Your task to perform on an android device: turn on bluetooth scan Image 0: 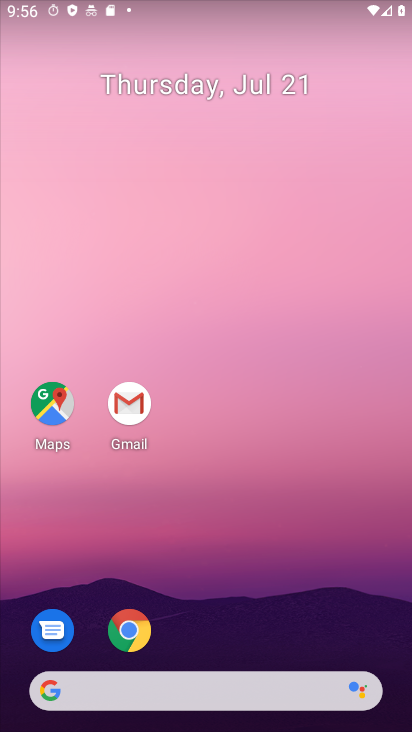
Step 0: drag from (241, 717) to (199, 375)
Your task to perform on an android device: turn on bluetooth scan Image 1: 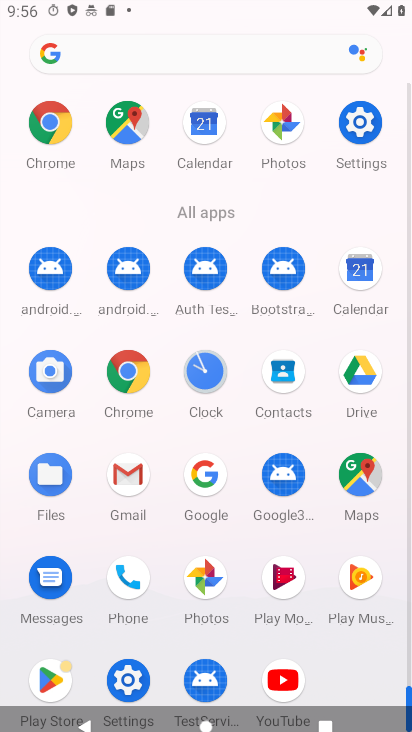
Step 1: click (347, 131)
Your task to perform on an android device: turn on bluetooth scan Image 2: 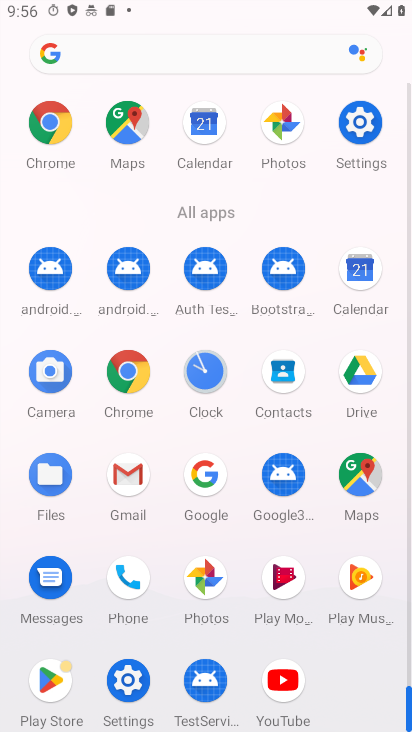
Step 2: click (350, 129)
Your task to perform on an android device: turn on bluetooth scan Image 3: 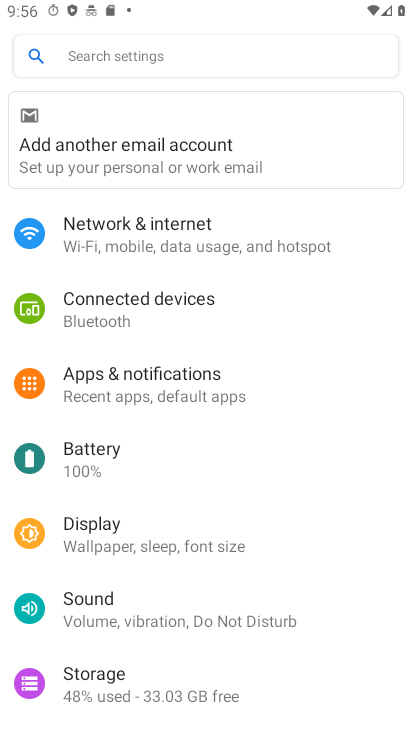
Step 3: drag from (207, 568) to (187, 361)
Your task to perform on an android device: turn on bluetooth scan Image 4: 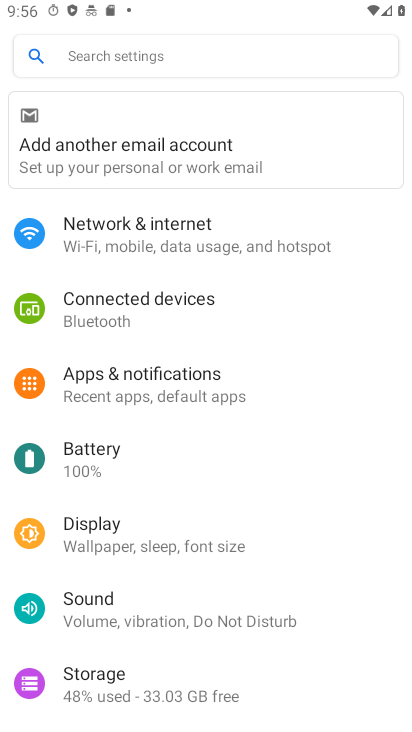
Step 4: drag from (218, 574) to (223, 319)
Your task to perform on an android device: turn on bluetooth scan Image 5: 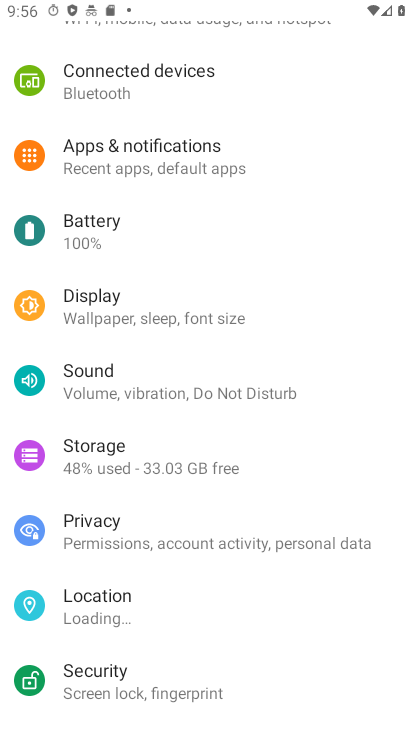
Step 5: drag from (179, 586) to (187, 364)
Your task to perform on an android device: turn on bluetooth scan Image 6: 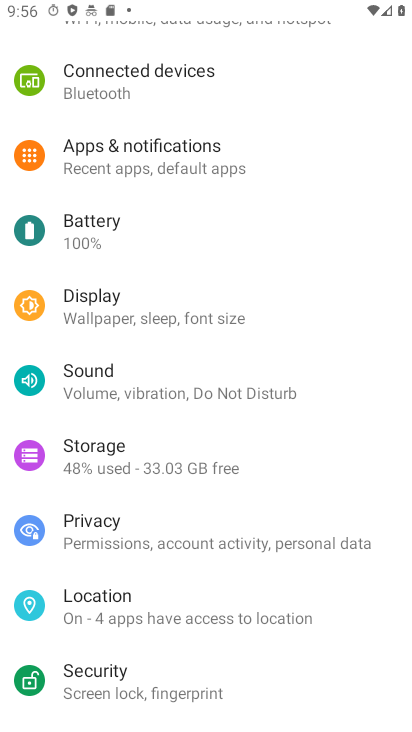
Step 6: drag from (175, 637) to (210, 304)
Your task to perform on an android device: turn on bluetooth scan Image 7: 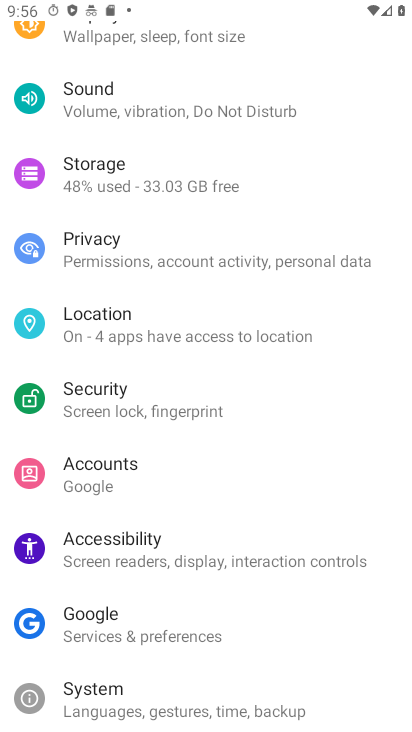
Step 7: drag from (177, 623) to (176, 252)
Your task to perform on an android device: turn on bluetooth scan Image 8: 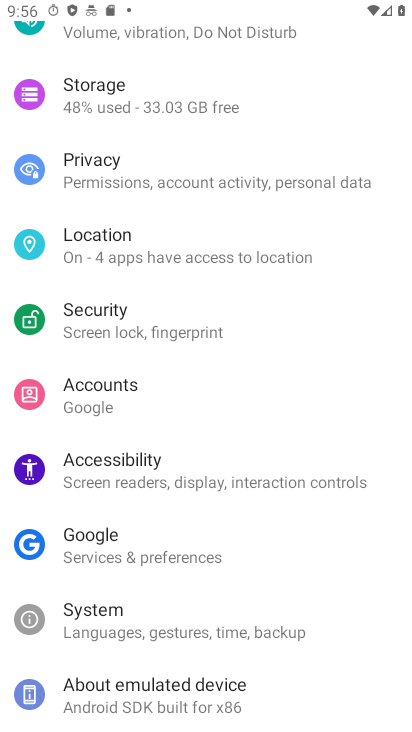
Step 8: drag from (136, 401) to (161, 554)
Your task to perform on an android device: turn on bluetooth scan Image 9: 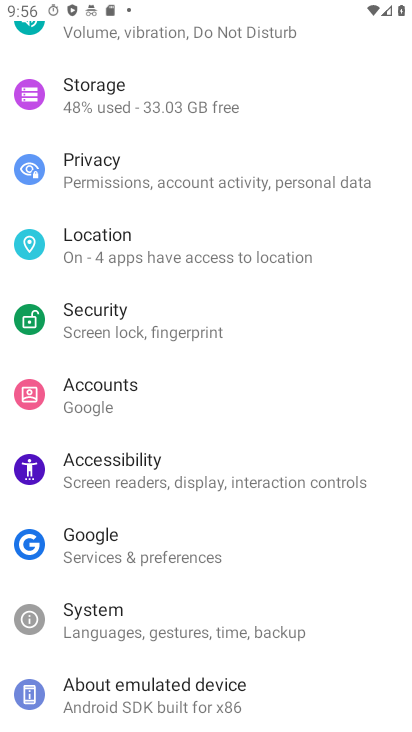
Step 9: drag from (173, 287) to (214, 533)
Your task to perform on an android device: turn on bluetooth scan Image 10: 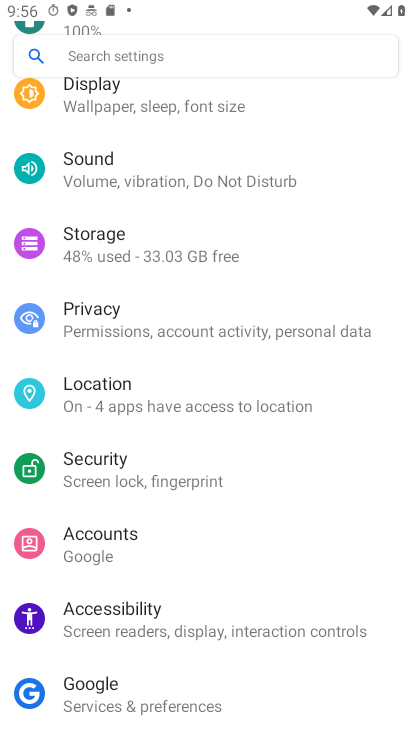
Step 10: drag from (196, 328) to (200, 498)
Your task to perform on an android device: turn on bluetooth scan Image 11: 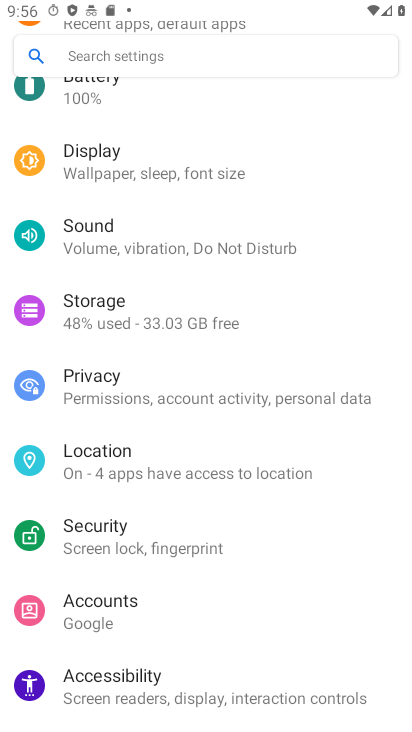
Step 11: drag from (191, 280) to (229, 504)
Your task to perform on an android device: turn on bluetooth scan Image 12: 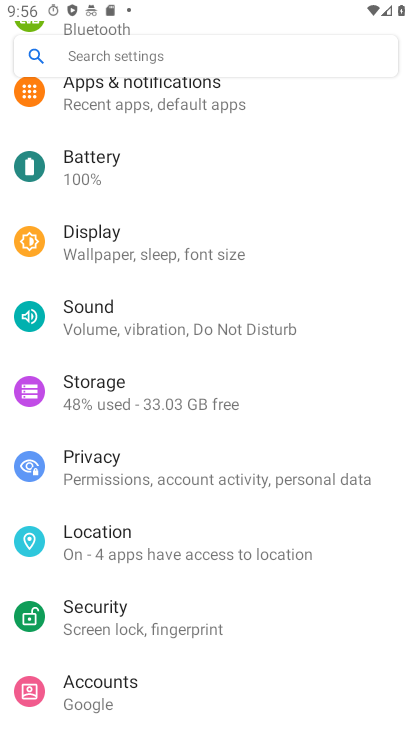
Step 12: drag from (230, 259) to (221, 597)
Your task to perform on an android device: turn on bluetooth scan Image 13: 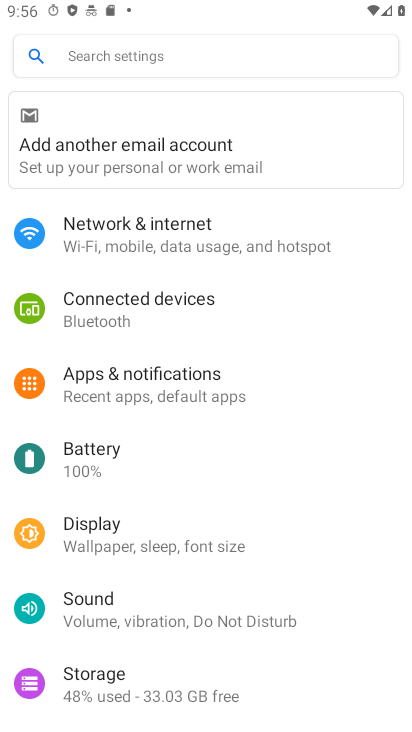
Step 13: drag from (130, 316) to (147, 613)
Your task to perform on an android device: turn on bluetooth scan Image 14: 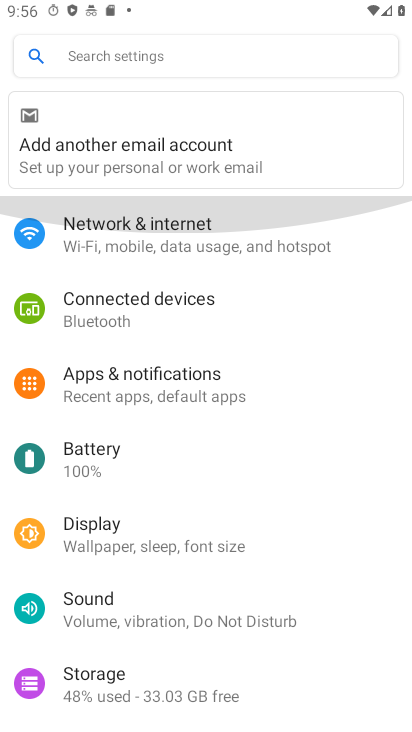
Step 14: drag from (159, 501) to (163, 603)
Your task to perform on an android device: turn on bluetooth scan Image 15: 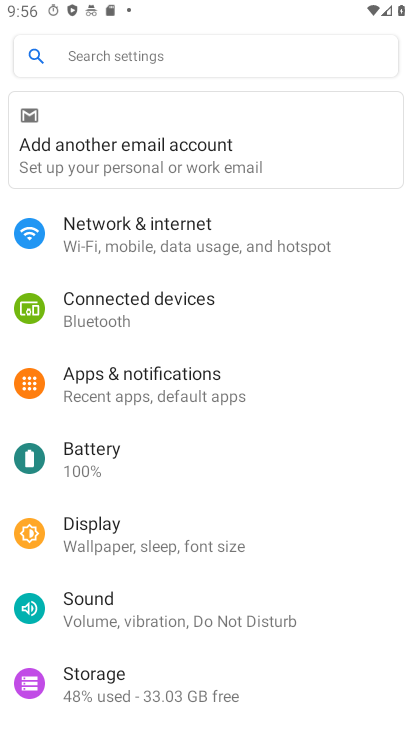
Step 15: drag from (159, 562) to (159, 311)
Your task to perform on an android device: turn on bluetooth scan Image 16: 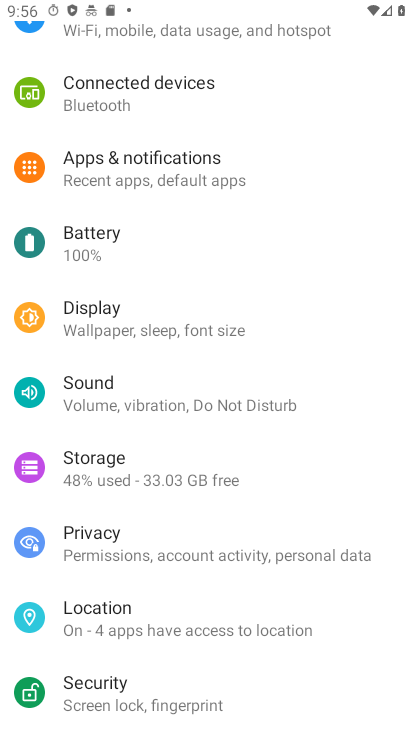
Step 16: drag from (197, 603) to (214, 296)
Your task to perform on an android device: turn on bluetooth scan Image 17: 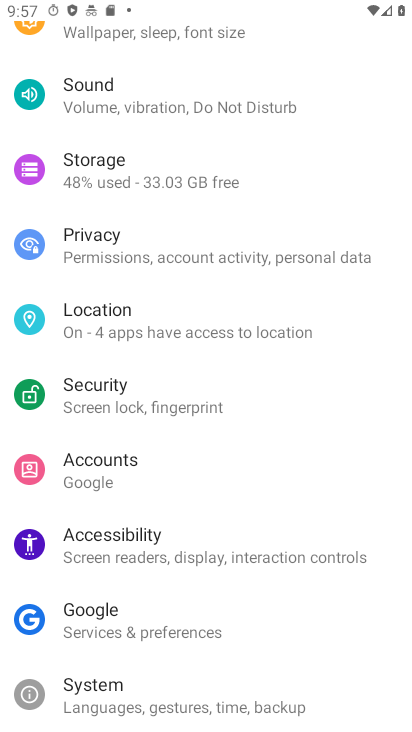
Step 17: drag from (210, 538) to (217, 202)
Your task to perform on an android device: turn on bluetooth scan Image 18: 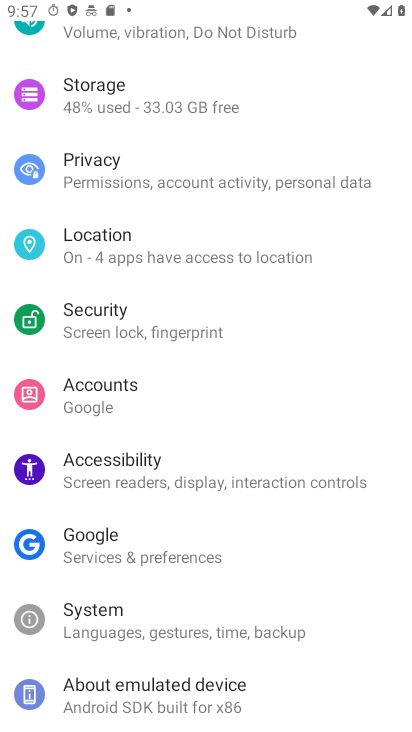
Step 18: click (95, 248)
Your task to perform on an android device: turn on bluetooth scan Image 19: 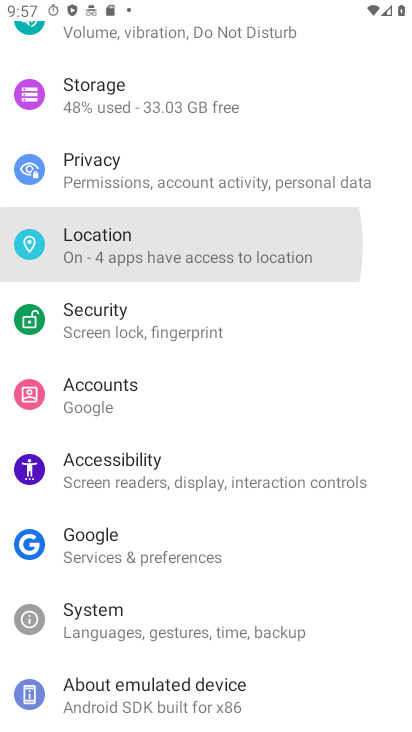
Step 19: click (101, 246)
Your task to perform on an android device: turn on bluetooth scan Image 20: 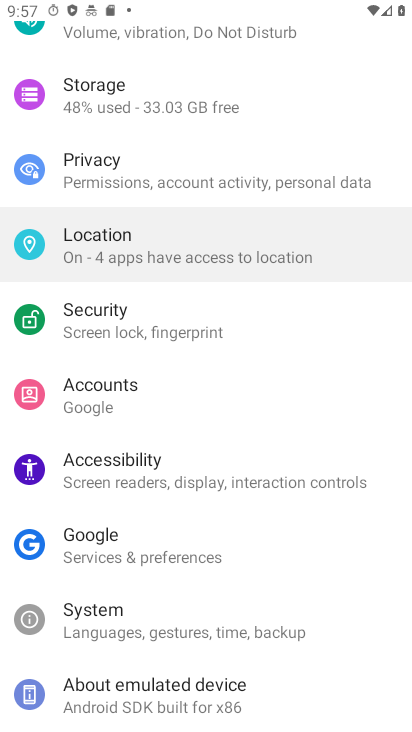
Step 20: click (102, 245)
Your task to perform on an android device: turn on bluetooth scan Image 21: 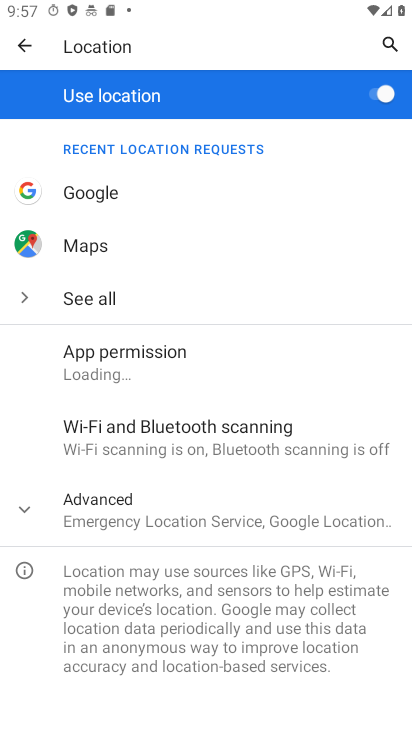
Step 21: click (171, 446)
Your task to perform on an android device: turn on bluetooth scan Image 22: 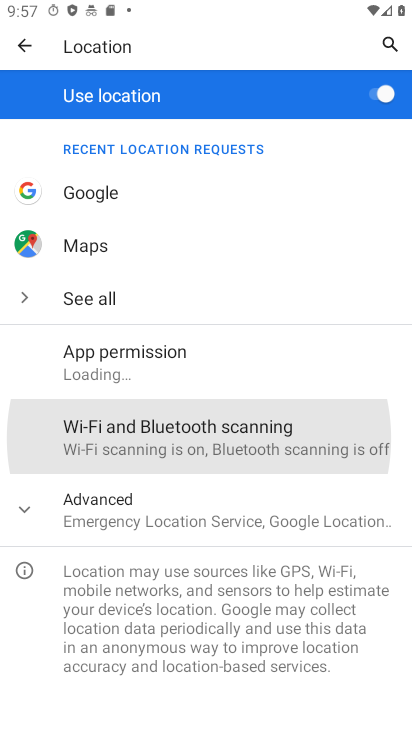
Step 22: click (175, 440)
Your task to perform on an android device: turn on bluetooth scan Image 23: 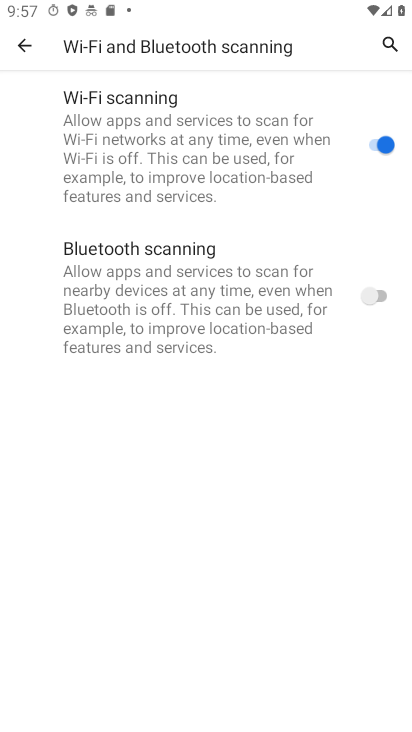
Step 23: click (375, 302)
Your task to perform on an android device: turn on bluetooth scan Image 24: 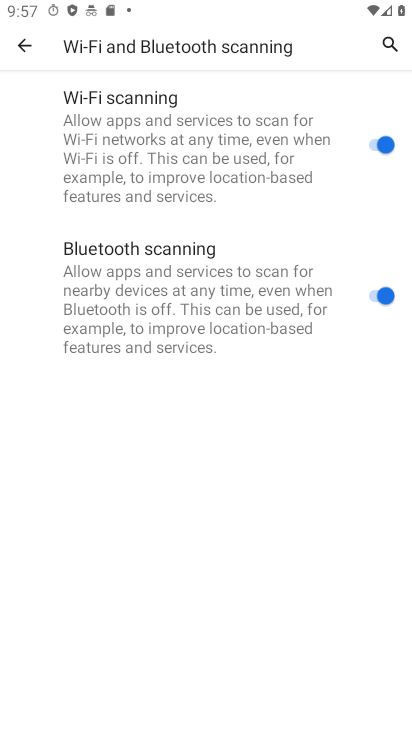
Step 24: task complete